Your task to perform on an android device: Find coffee shops on Maps Image 0: 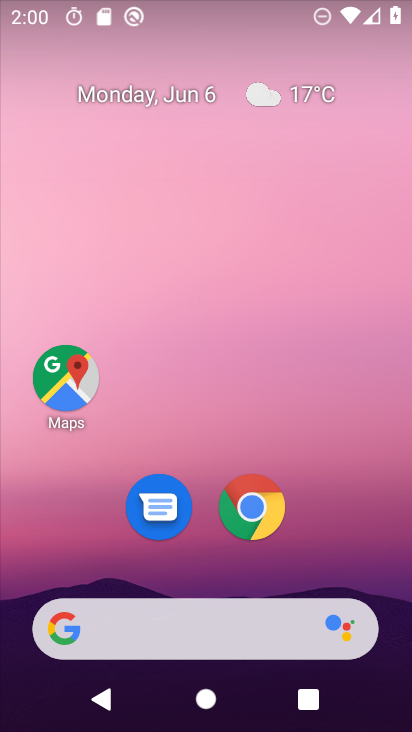
Step 0: drag from (249, 693) to (121, 126)
Your task to perform on an android device: Find coffee shops on Maps Image 1: 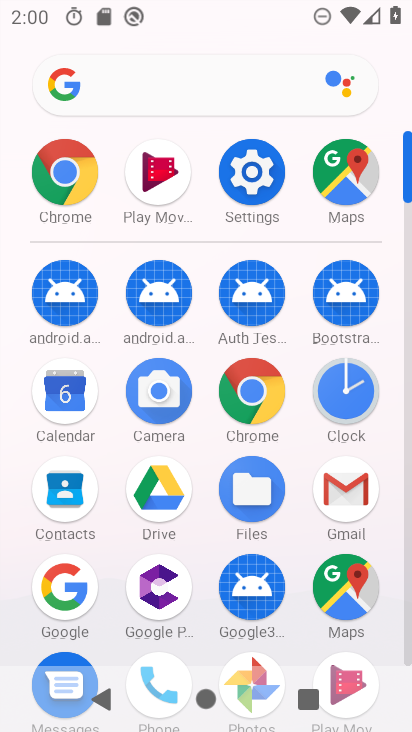
Step 1: click (345, 172)
Your task to perform on an android device: Find coffee shops on Maps Image 2: 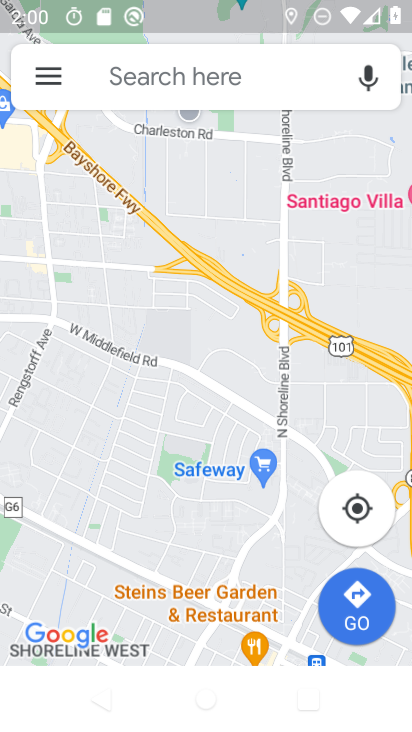
Step 2: click (182, 87)
Your task to perform on an android device: Find coffee shops on Maps Image 3: 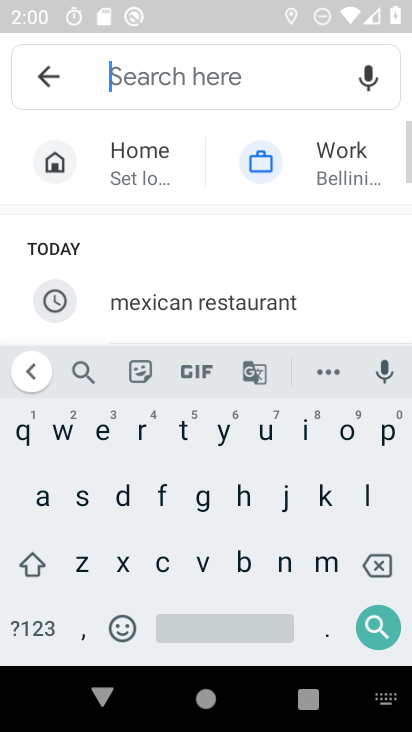
Step 3: click (156, 561)
Your task to perform on an android device: Find coffee shops on Maps Image 4: 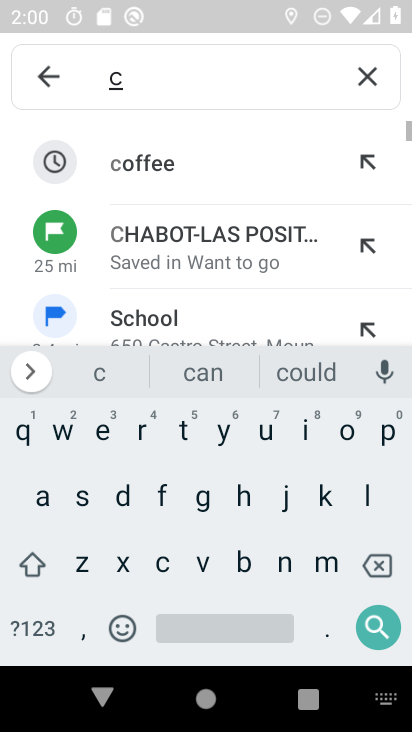
Step 4: click (142, 160)
Your task to perform on an android device: Find coffee shops on Maps Image 5: 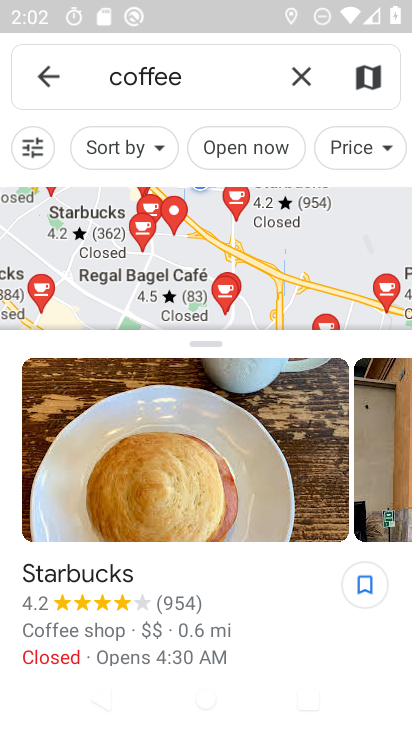
Step 5: task complete